Your task to perform on an android device: Go to privacy settings Image 0: 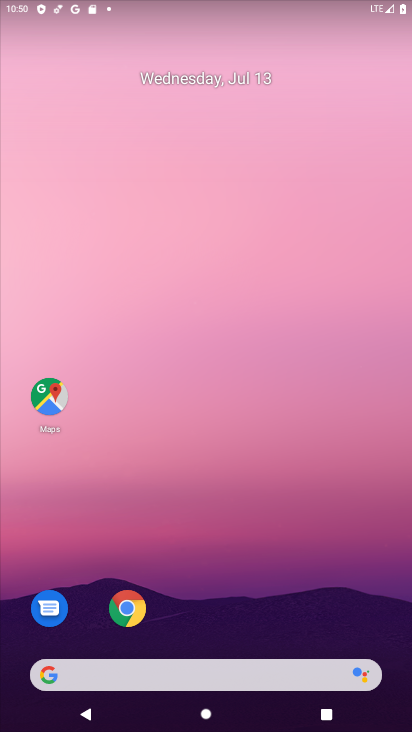
Step 0: drag from (231, 591) to (304, 46)
Your task to perform on an android device: Go to privacy settings Image 1: 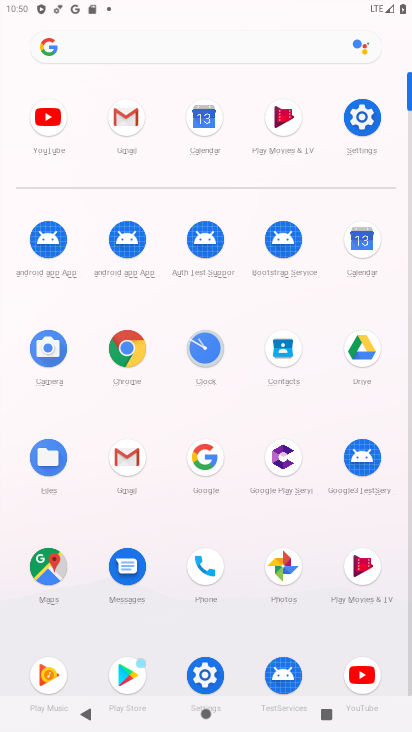
Step 1: click (372, 117)
Your task to perform on an android device: Go to privacy settings Image 2: 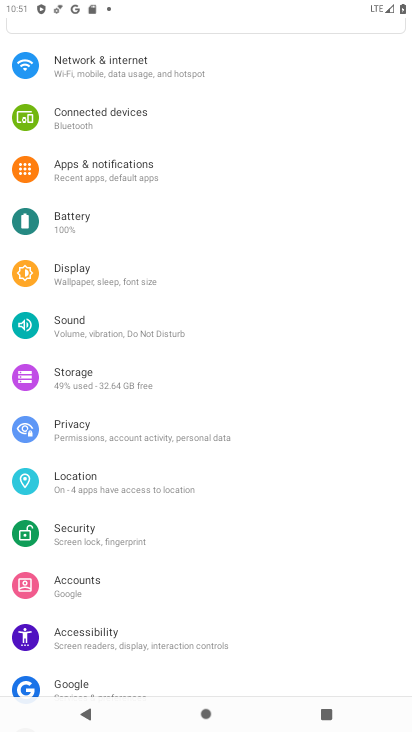
Step 2: click (81, 438)
Your task to perform on an android device: Go to privacy settings Image 3: 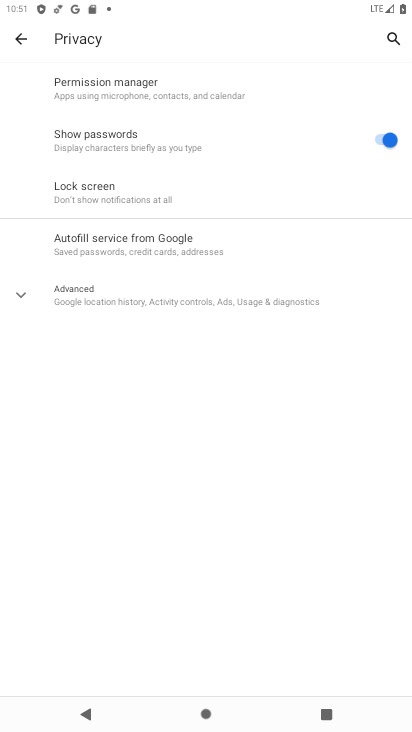
Step 3: task complete